Your task to perform on an android device: Open ESPN.com Image 0: 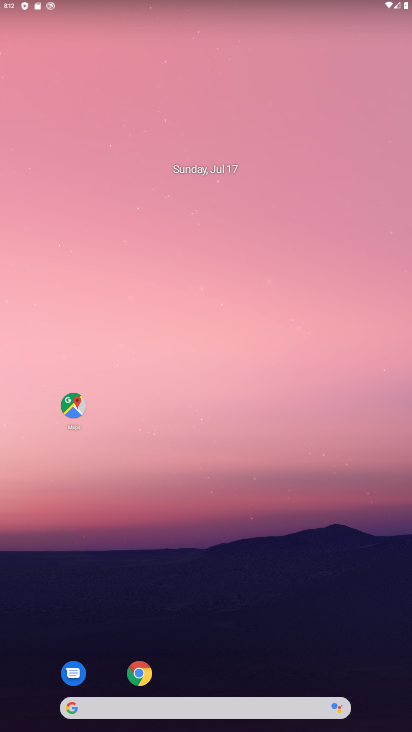
Step 0: click (139, 679)
Your task to perform on an android device: Open ESPN.com Image 1: 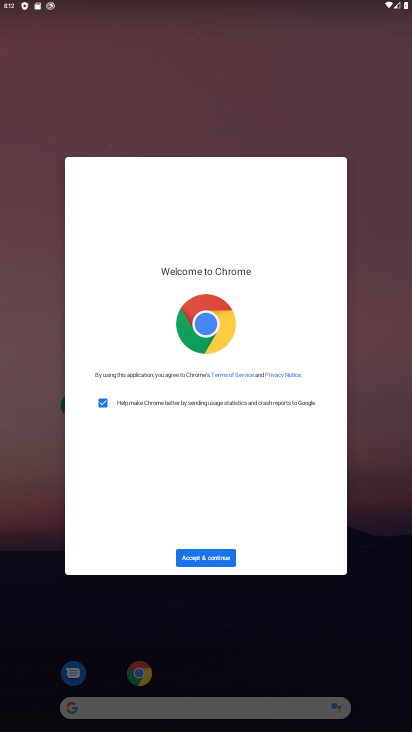
Step 1: click (217, 557)
Your task to perform on an android device: Open ESPN.com Image 2: 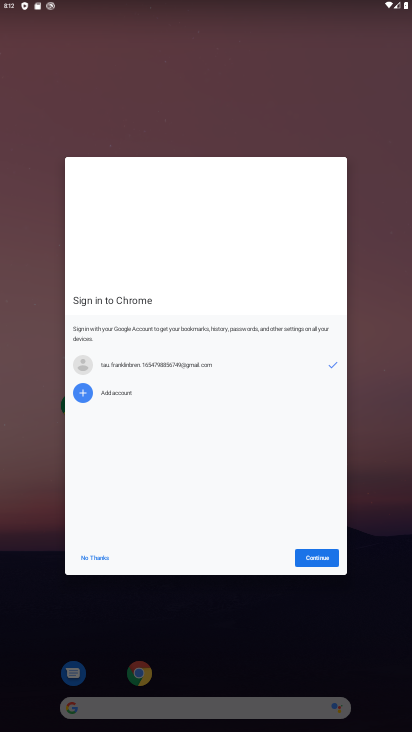
Step 2: click (327, 564)
Your task to perform on an android device: Open ESPN.com Image 3: 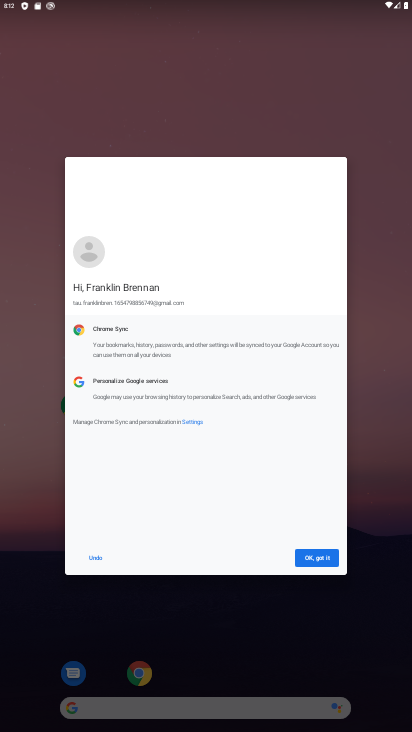
Step 3: click (327, 564)
Your task to perform on an android device: Open ESPN.com Image 4: 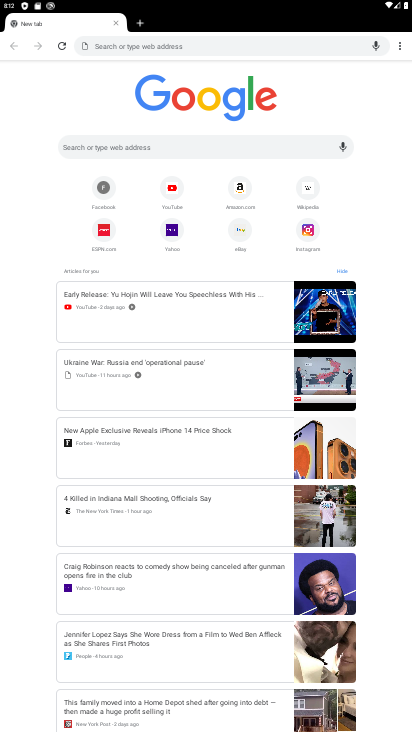
Step 4: click (100, 227)
Your task to perform on an android device: Open ESPN.com Image 5: 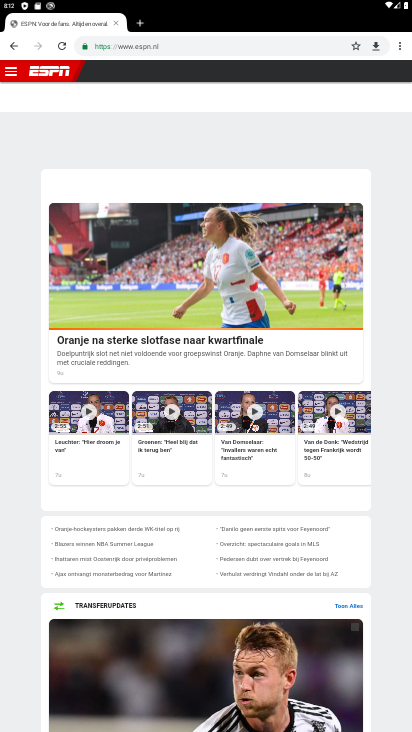
Step 5: task complete